Your task to perform on an android device: check android version Image 0: 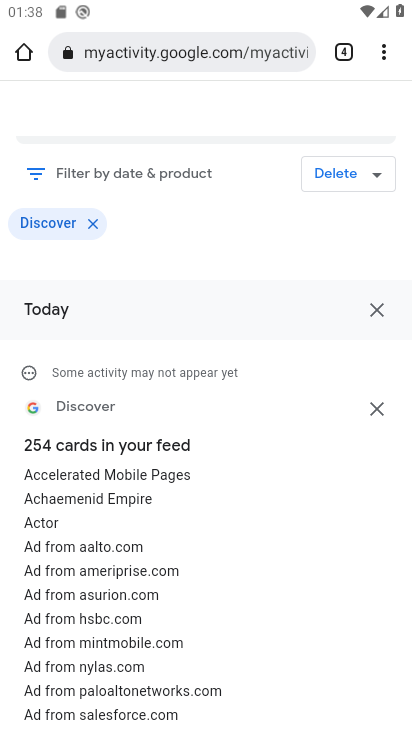
Step 0: press home button
Your task to perform on an android device: check android version Image 1: 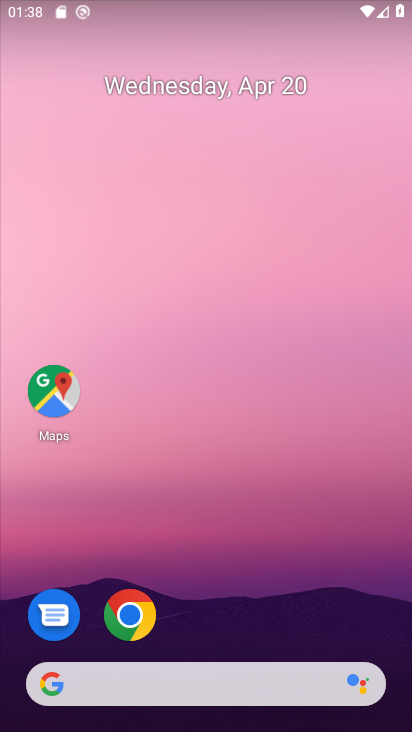
Step 1: drag from (340, 615) to (292, 248)
Your task to perform on an android device: check android version Image 2: 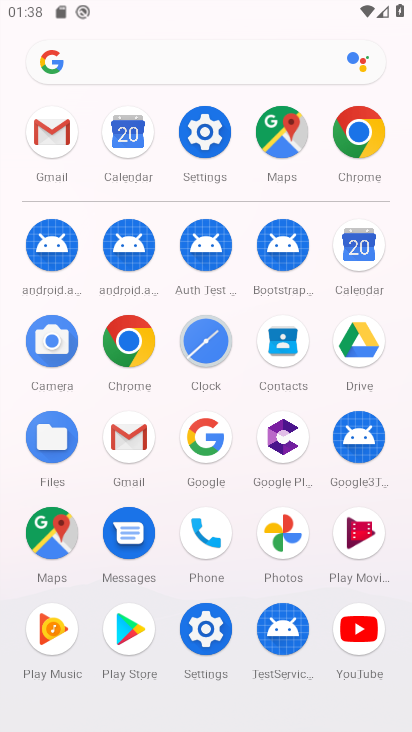
Step 2: click (203, 115)
Your task to perform on an android device: check android version Image 3: 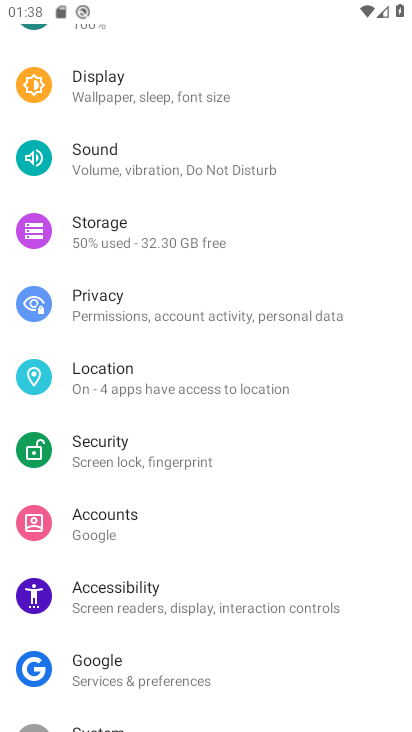
Step 3: drag from (302, 672) to (341, 341)
Your task to perform on an android device: check android version Image 4: 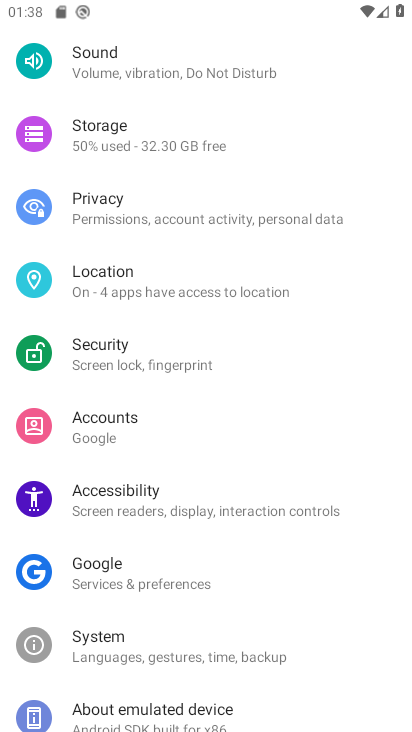
Step 4: click (169, 703)
Your task to perform on an android device: check android version Image 5: 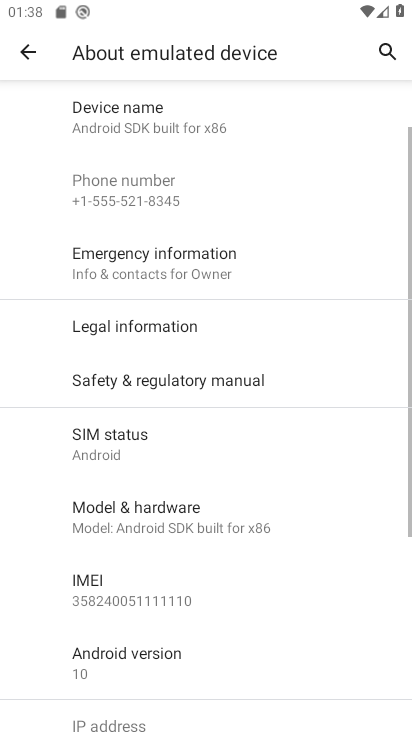
Step 5: click (137, 658)
Your task to perform on an android device: check android version Image 6: 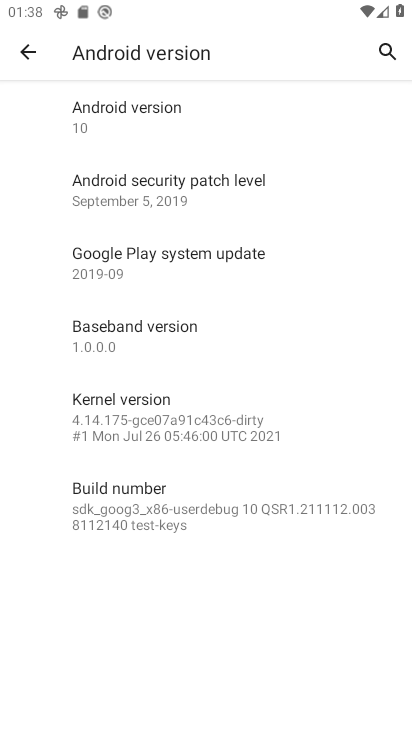
Step 6: click (109, 104)
Your task to perform on an android device: check android version Image 7: 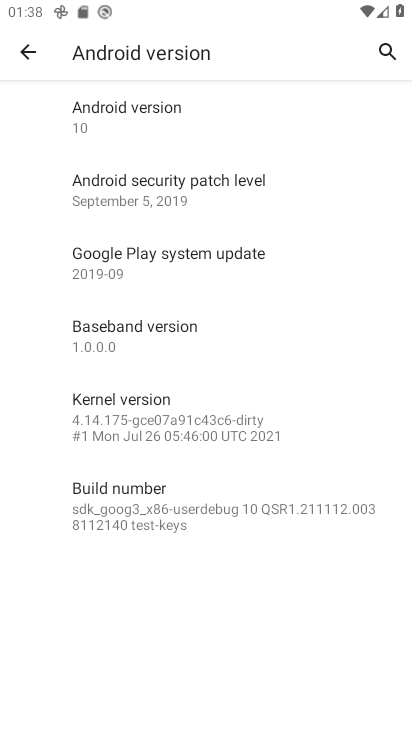
Step 7: task complete